Your task to perform on an android device: Open the phone app and click the voicemail tab. Image 0: 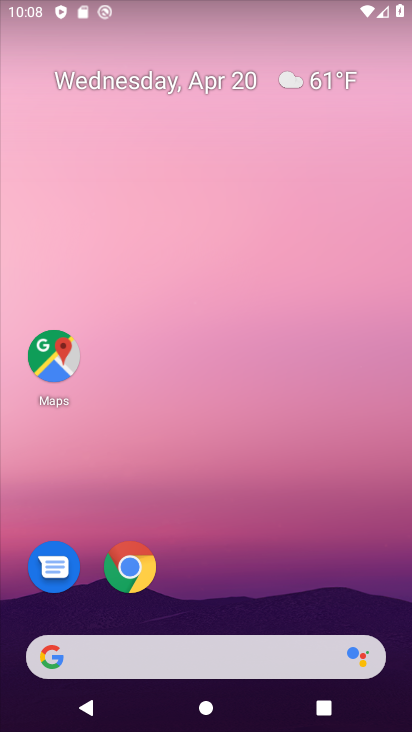
Step 0: drag from (220, 532) to (310, 39)
Your task to perform on an android device: Open the phone app and click the voicemail tab. Image 1: 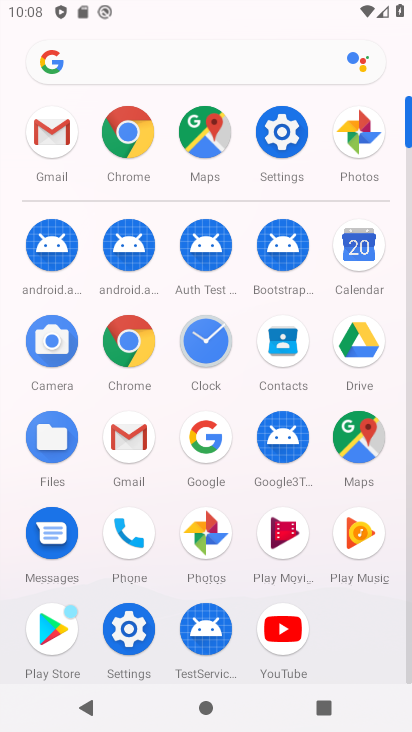
Step 1: click (122, 535)
Your task to perform on an android device: Open the phone app and click the voicemail tab. Image 2: 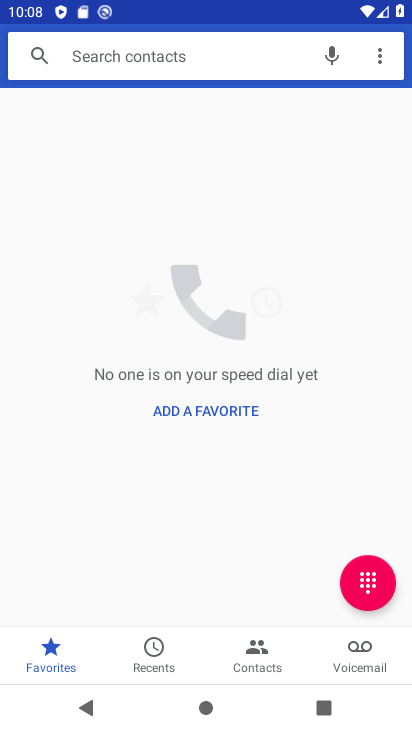
Step 2: click (360, 663)
Your task to perform on an android device: Open the phone app and click the voicemail tab. Image 3: 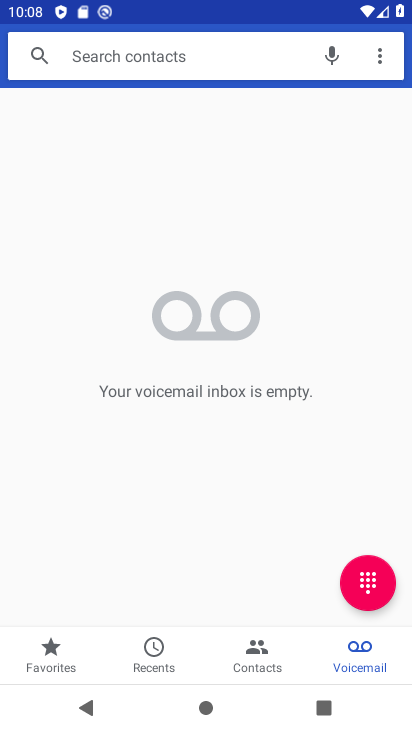
Step 3: task complete